Your task to perform on an android device: uninstall "Google Find My Device" Image 0: 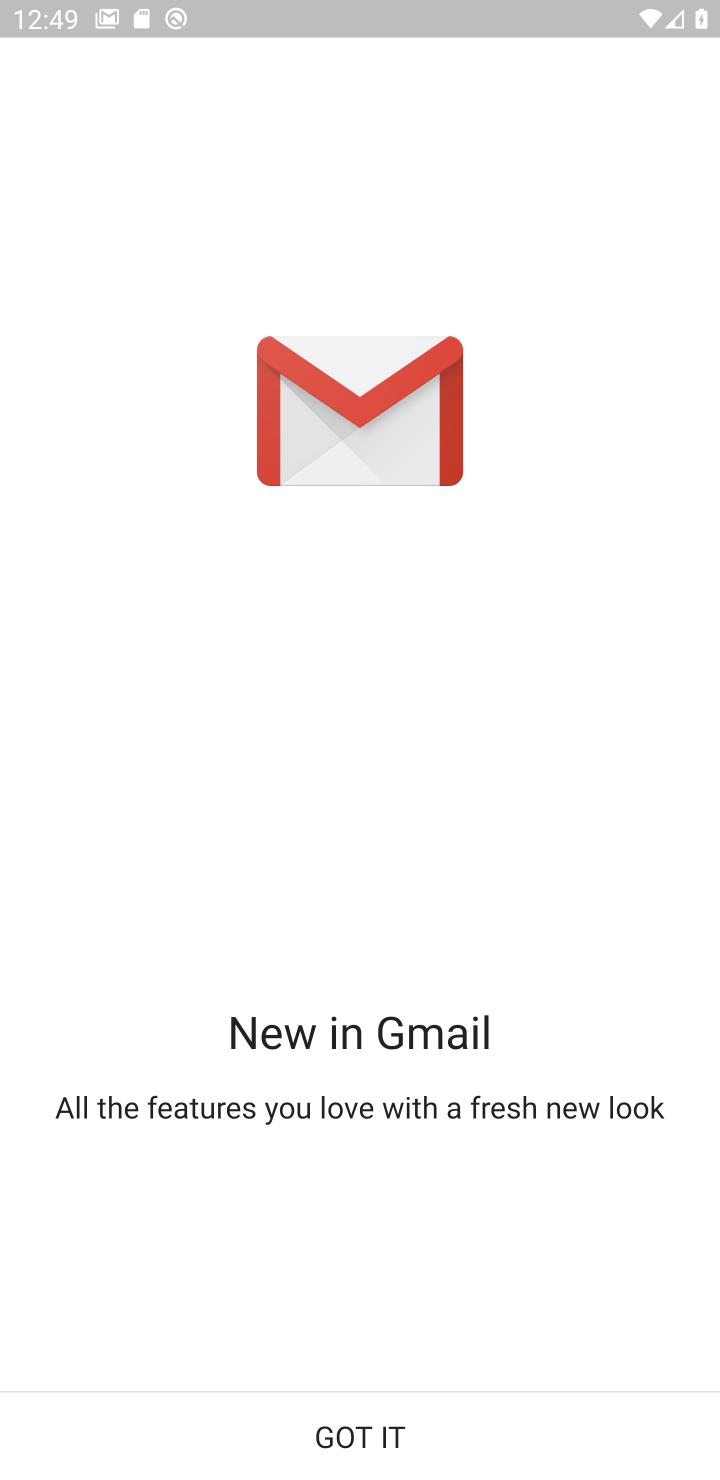
Step 0: press home button
Your task to perform on an android device: uninstall "Google Find My Device" Image 1: 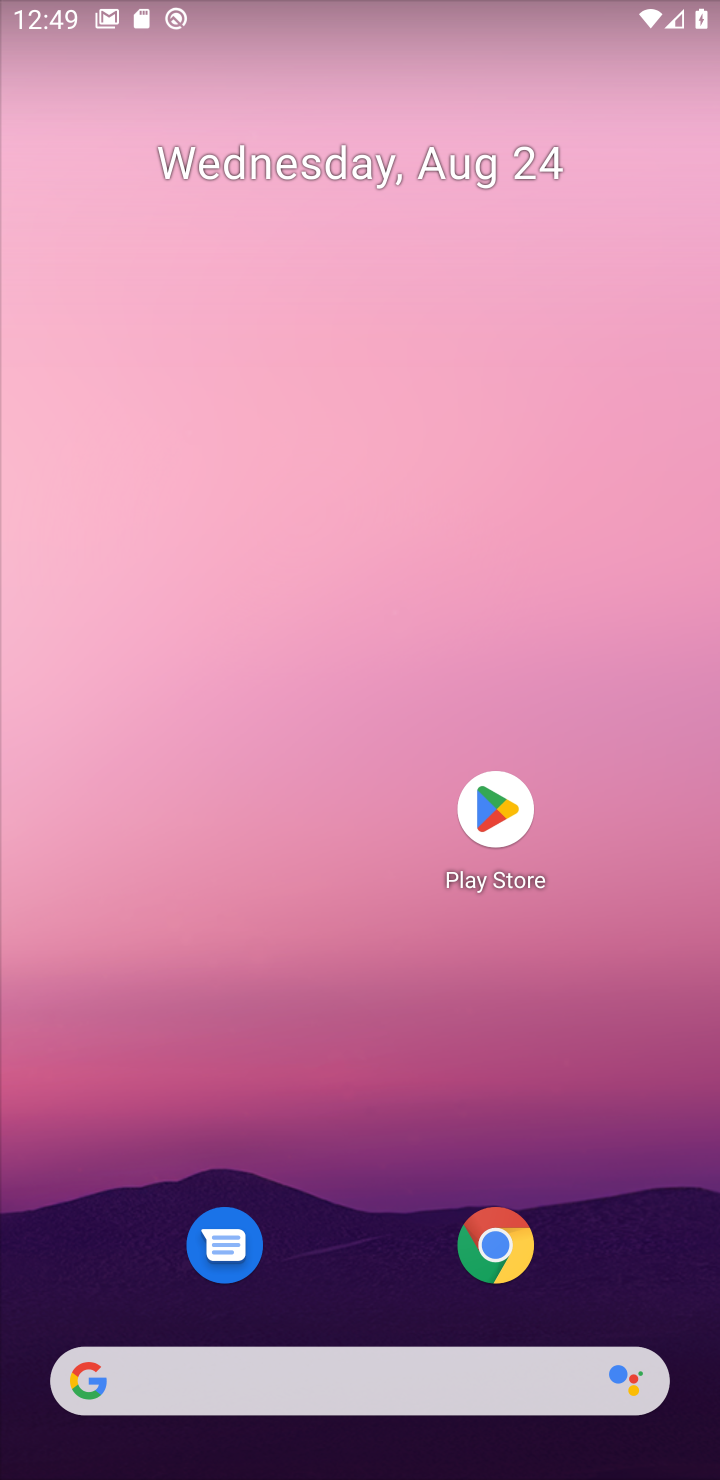
Step 1: click (481, 799)
Your task to perform on an android device: uninstall "Google Find My Device" Image 2: 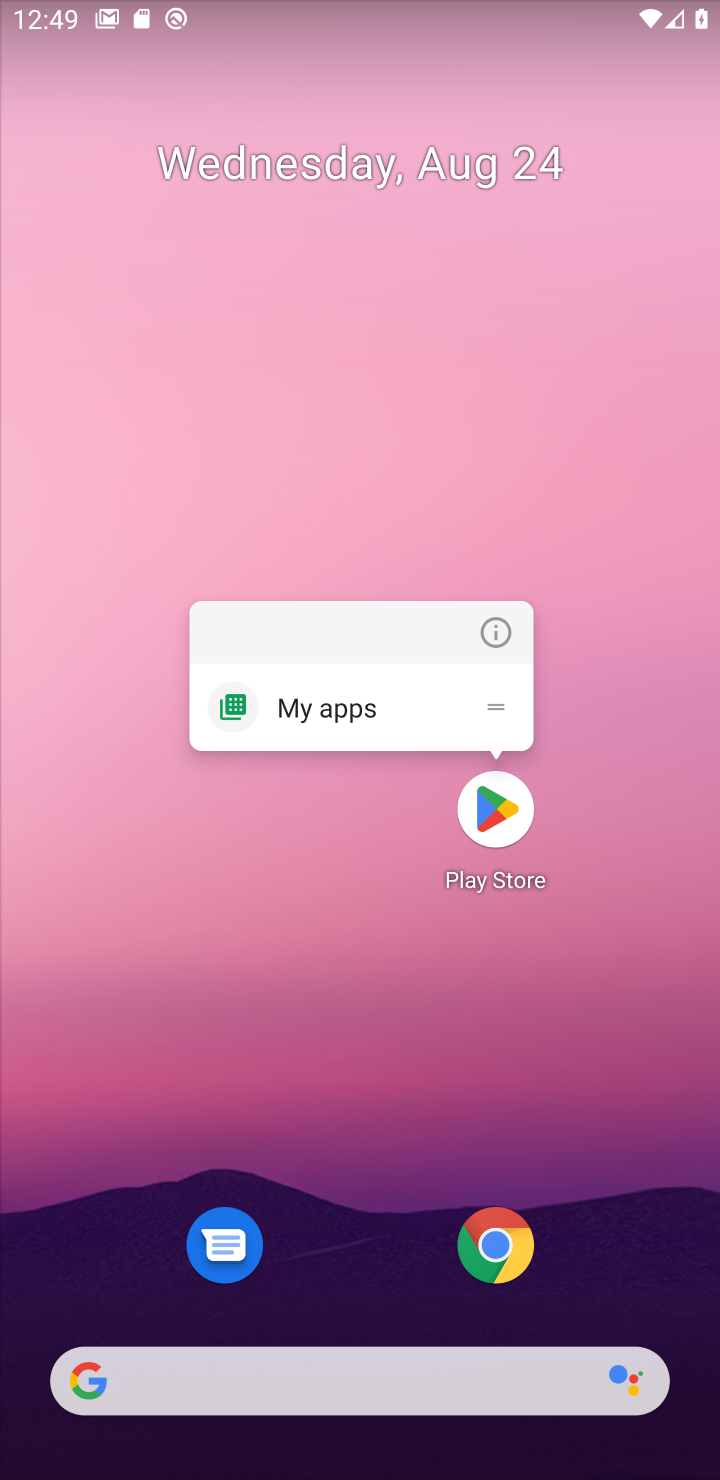
Step 2: click (496, 817)
Your task to perform on an android device: uninstall "Google Find My Device" Image 3: 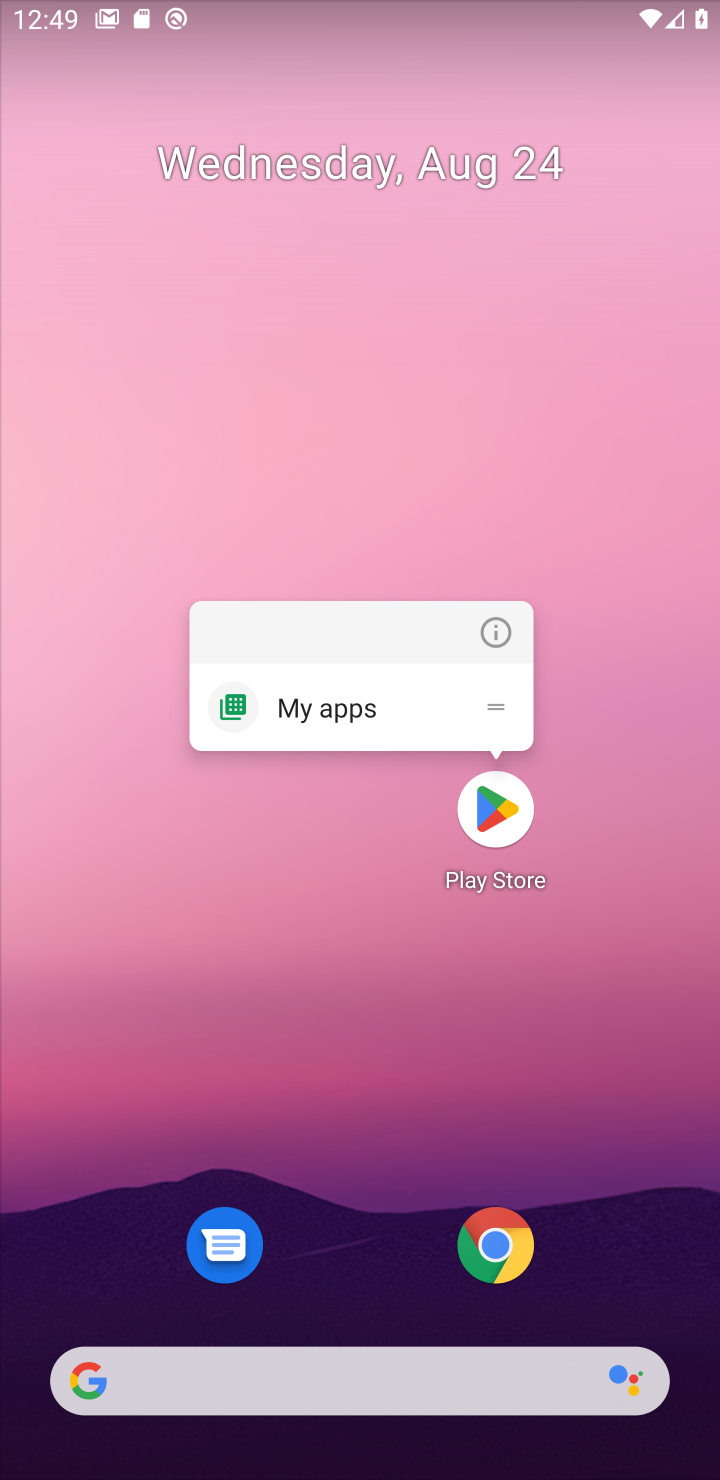
Step 3: click (490, 813)
Your task to perform on an android device: uninstall "Google Find My Device" Image 4: 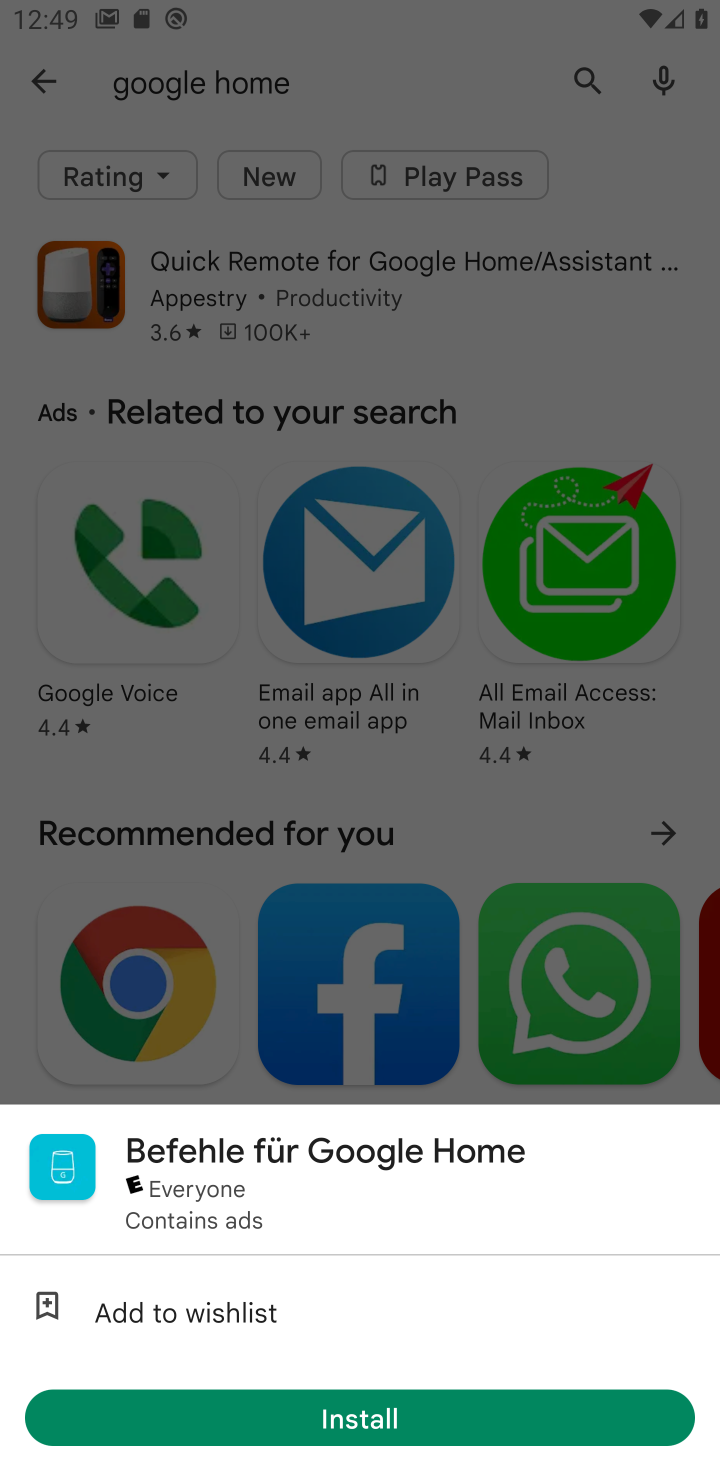
Step 4: click (580, 67)
Your task to perform on an android device: uninstall "Google Find My Device" Image 5: 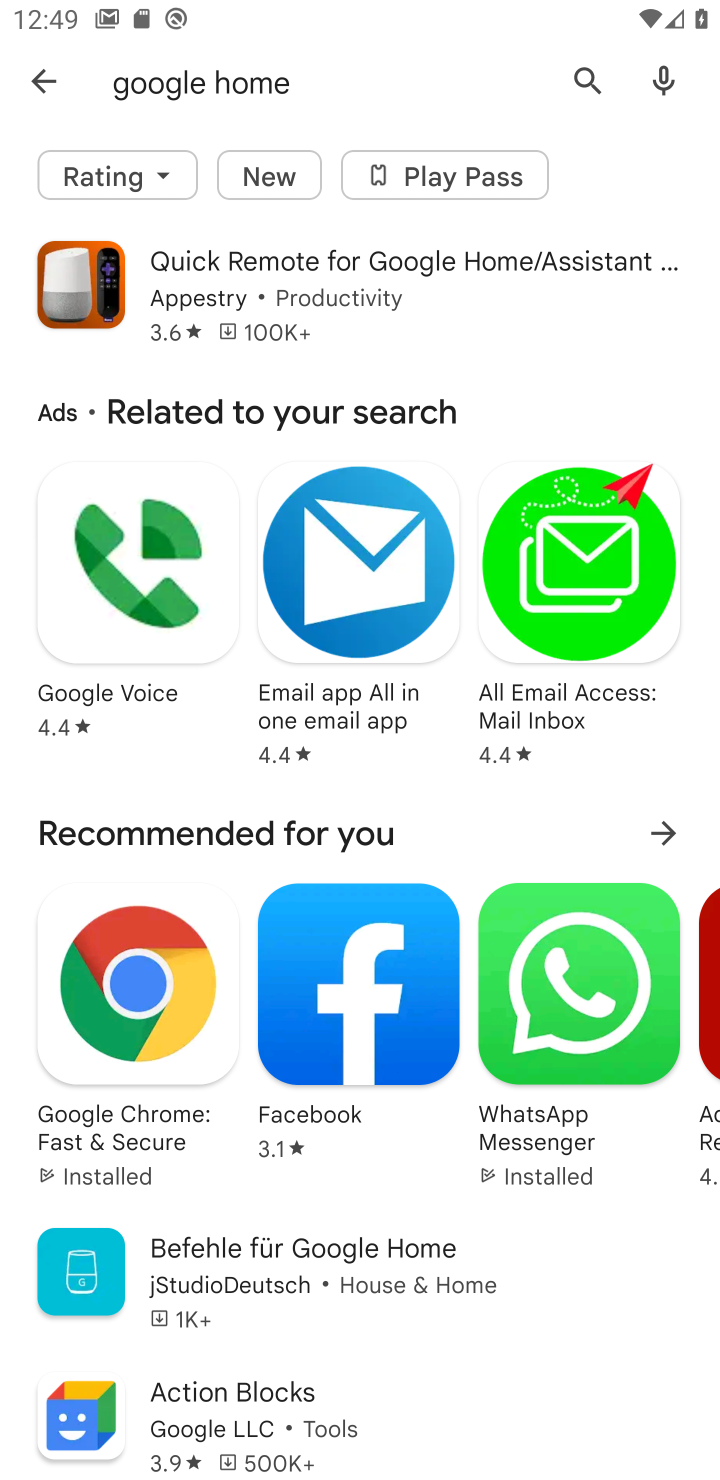
Step 5: click (574, 92)
Your task to perform on an android device: uninstall "Google Find My Device" Image 6: 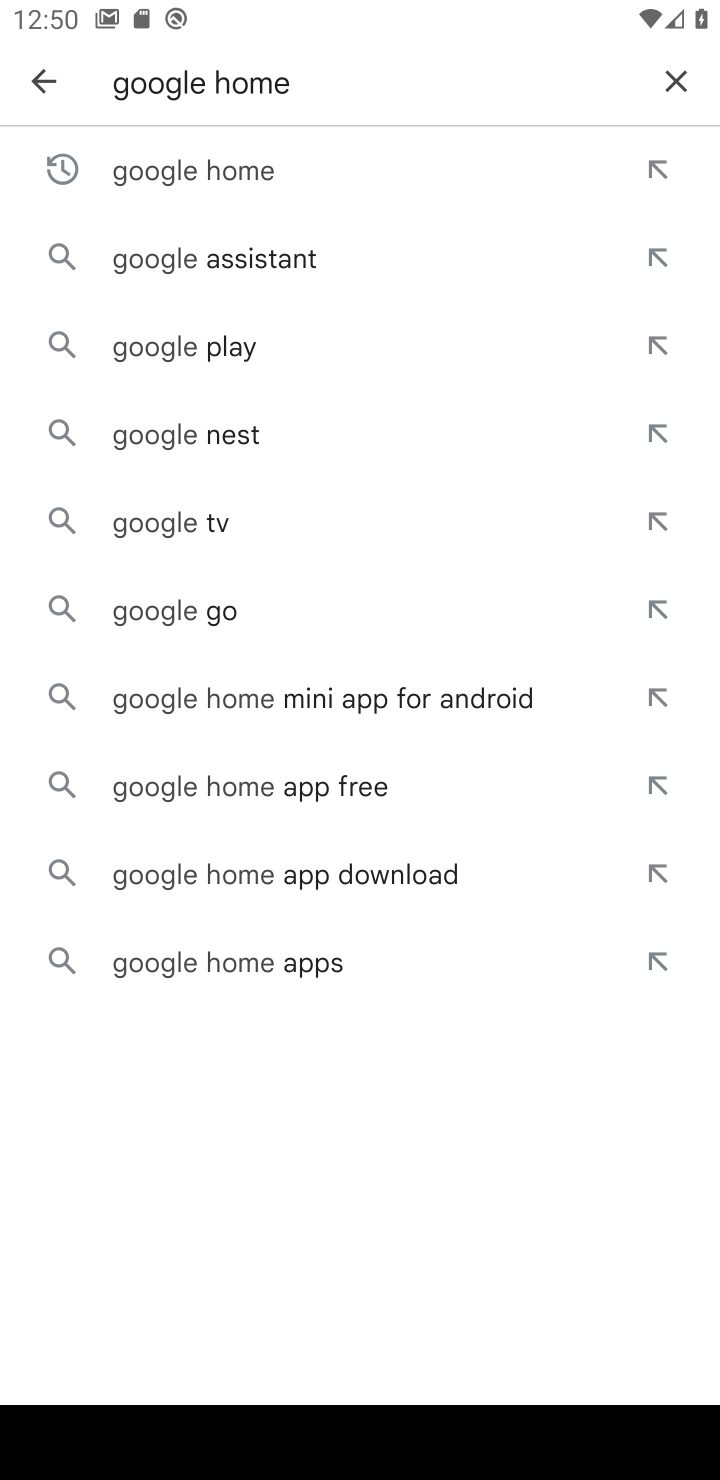
Step 6: click (687, 69)
Your task to perform on an android device: uninstall "Google Find My Device" Image 7: 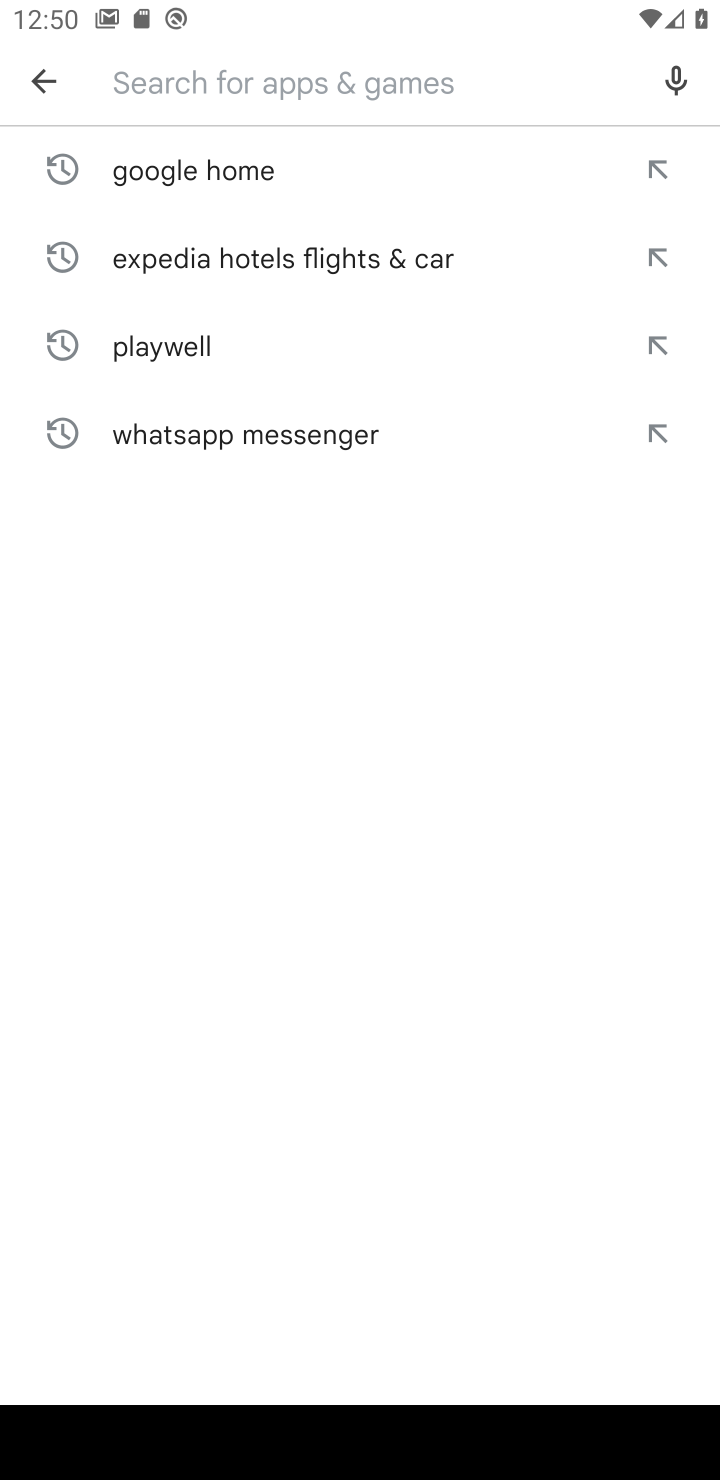
Step 7: type "Google Find My Device"
Your task to perform on an android device: uninstall "Google Find My Device" Image 8: 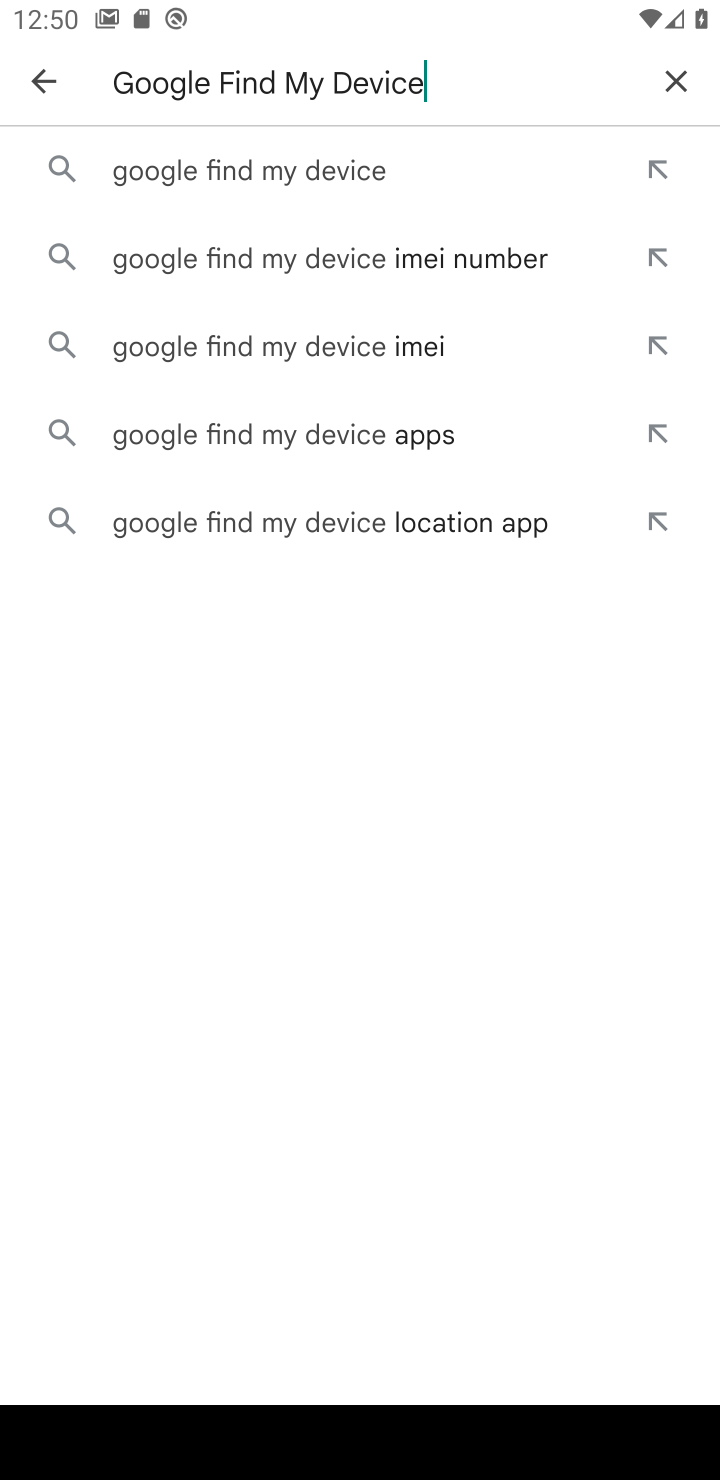
Step 8: click (289, 166)
Your task to perform on an android device: uninstall "Google Find My Device" Image 9: 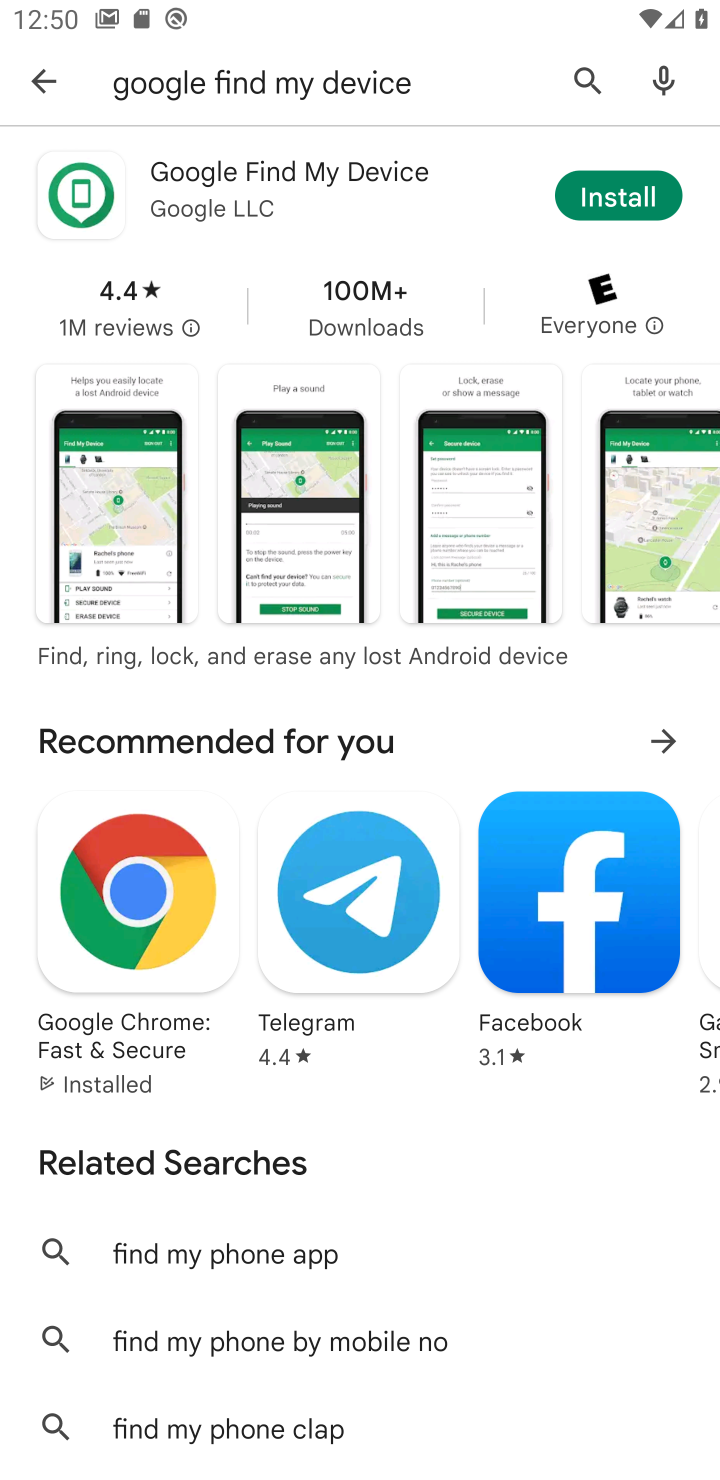
Step 9: task complete